Your task to perform on an android device: Open ESPN.com Image 0: 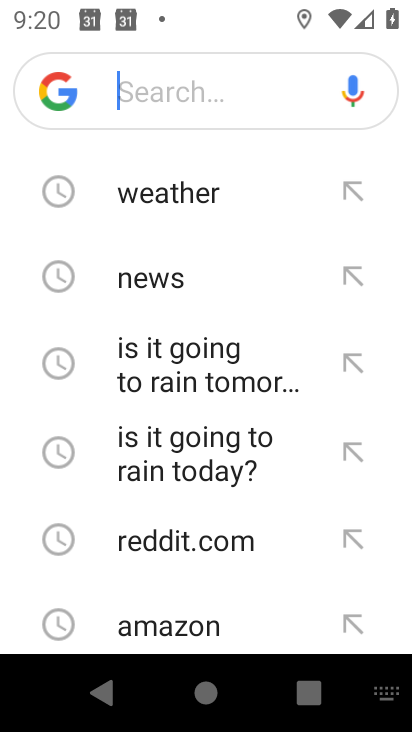
Step 0: press home button
Your task to perform on an android device: Open ESPN.com Image 1: 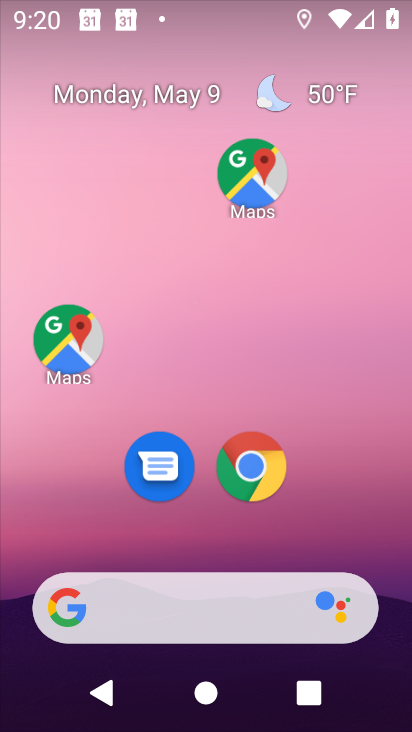
Step 1: click (258, 467)
Your task to perform on an android device: Open ESPN.com Image 2: 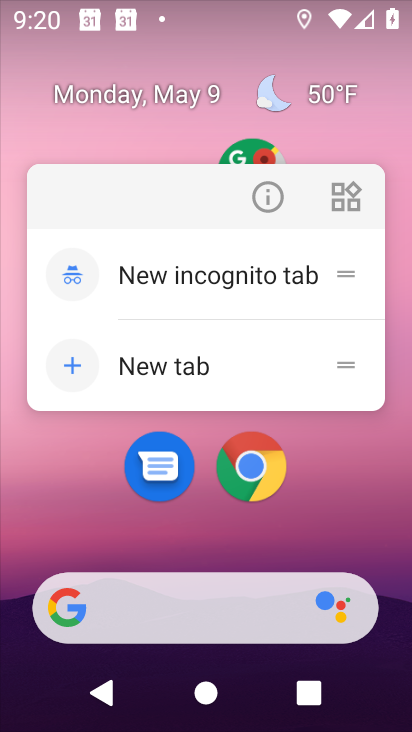
Step 2: click (258, 467)
Your task to perform on an android device: Open ESPN.com Image 3: 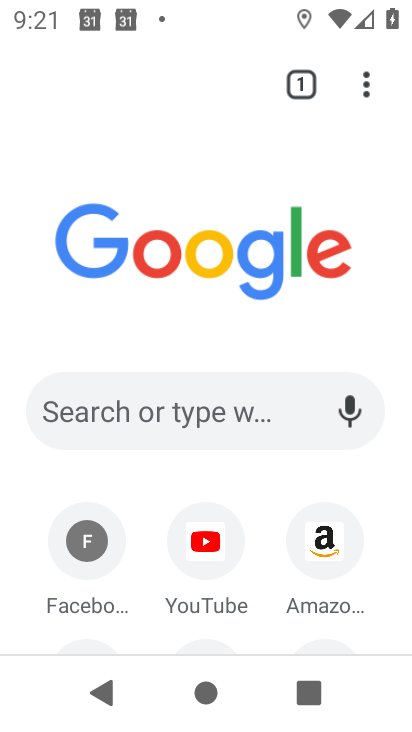
Step 3: drag from (157, 549) to (150, 262)
Your task to perform on an android device: Open ESPN.com Image 4: 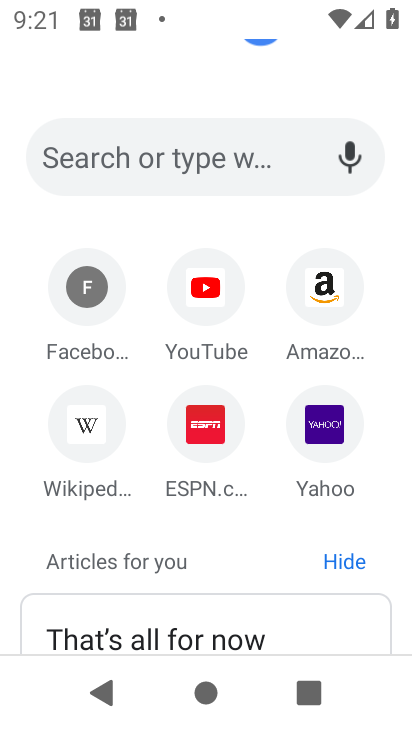
Step 4: click (198, 425)
Your task to perform on an android device: Open ESPN.com Image 5: 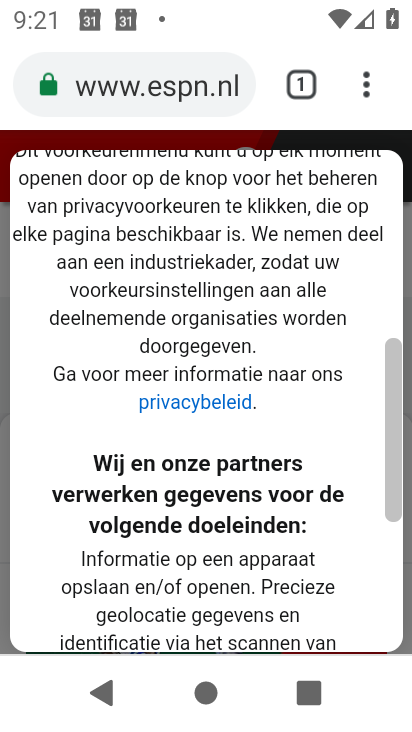
Step 5: task complete